Your task to perform on an android device: Go to settings Image 0: 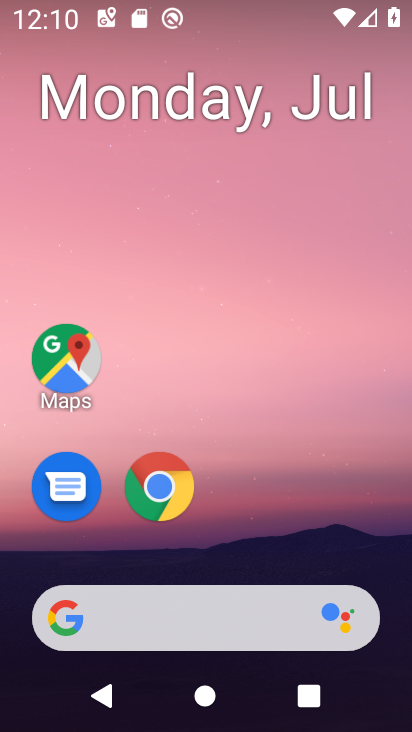
Step 0: press home button
Your task to perform on an android device: Go to settings Image 1: 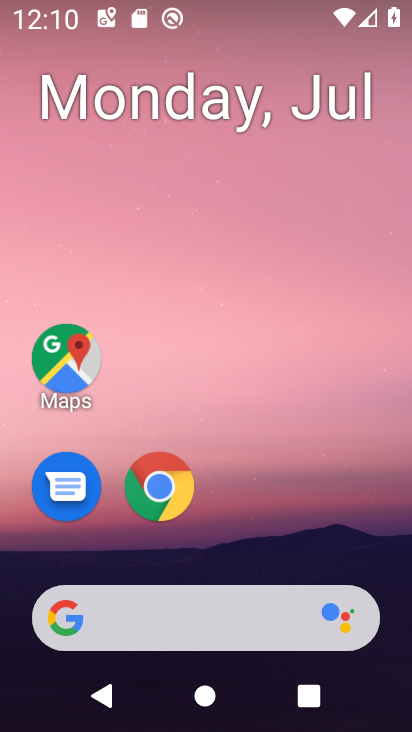
Step 1: drag from (353, 517) to (343, 148)
Your task to perform on an android device: Go to settings Image 2: 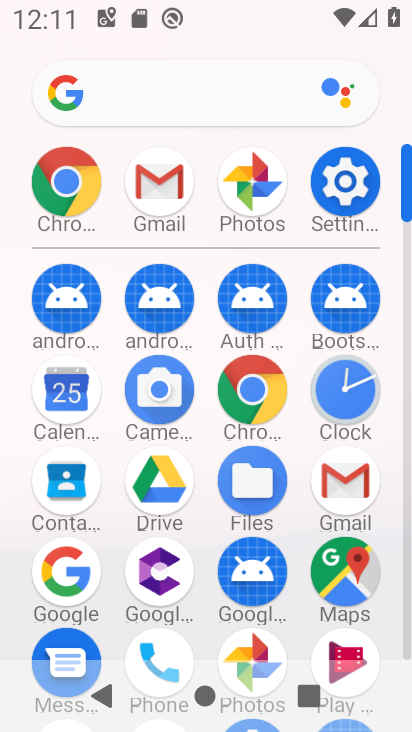
Step 2: click (352, 192)
Your task to perform on an android device: Go to settings Image 3: 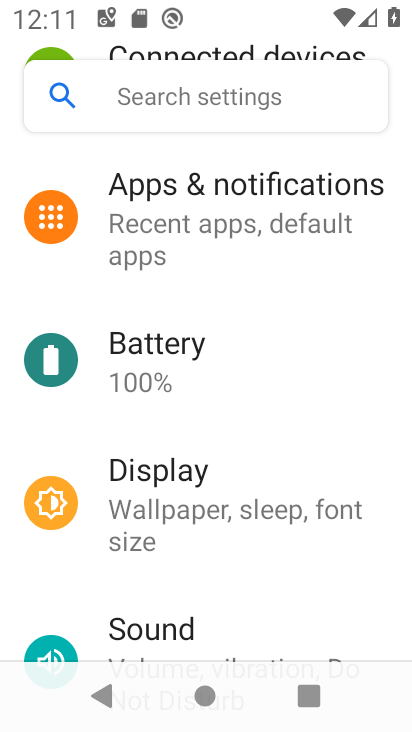
Step 3: task complete